Your task to perform on an android device: move a message to another label in the gmail app Image 0: 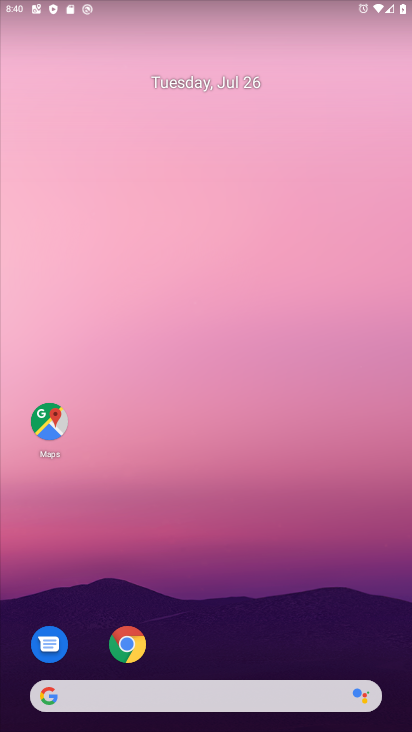
Step 0: drag from (195, 618) to (215, 269)
Your task to perform on an android device: move a message to another label in the gmail app Image 1: 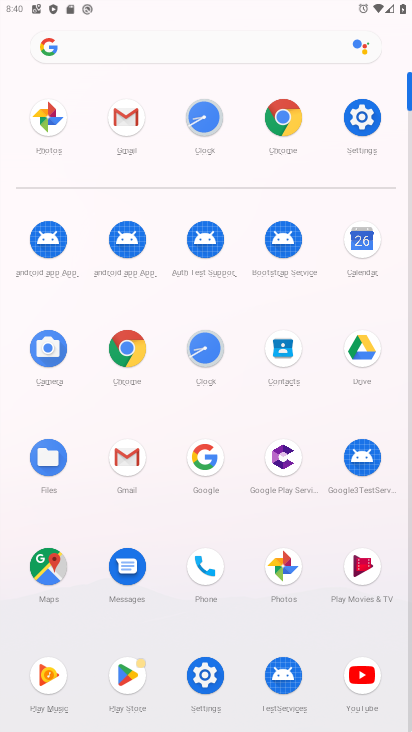
Step 1: click (121, 449)
Your task to perform on an android device: move a message to another label in the gmail app Image 2: 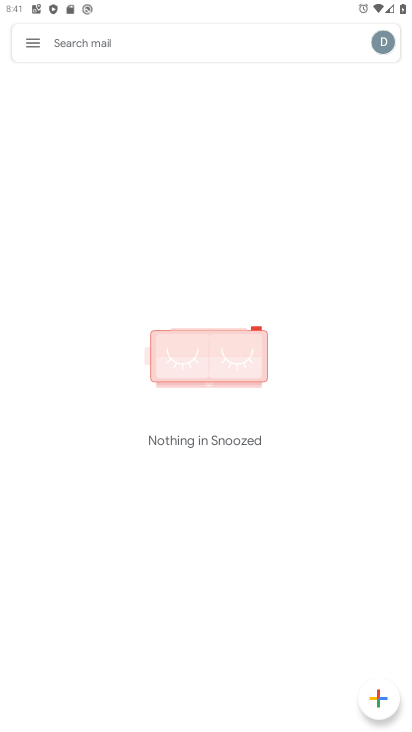
Step 2: click (29, 39)
Your task to perform on an android device: move a message to another label in the gmail app Image 3: 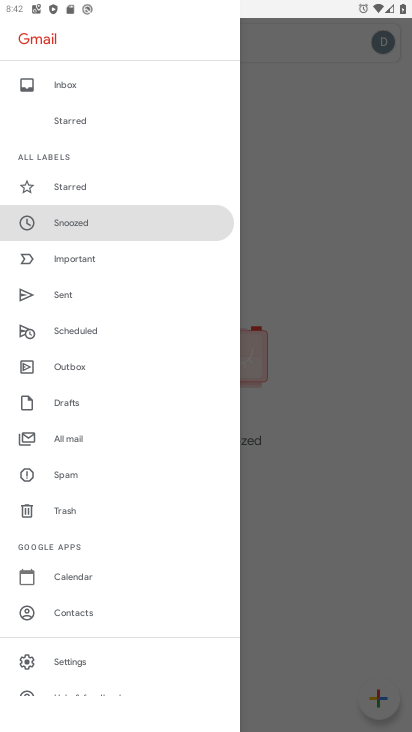
Step 3: click (62, 426)
Your task to perform on an android device: move a message to another label in the gmail app Image 4: 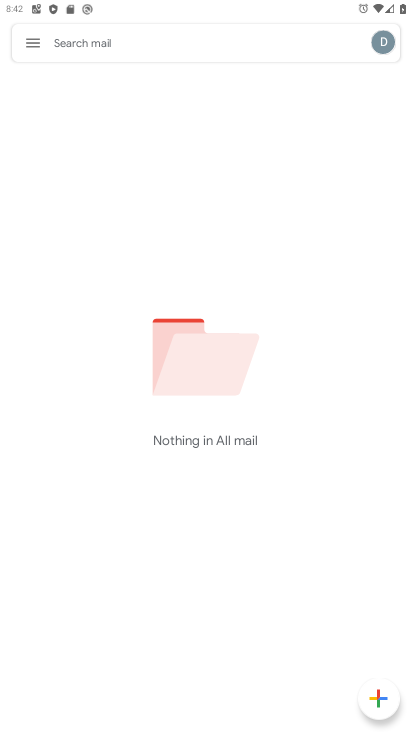
Step 4: task complete